Your task to perform on an android device: Open the Play Movies app and select the watchlist tab. Image 0: 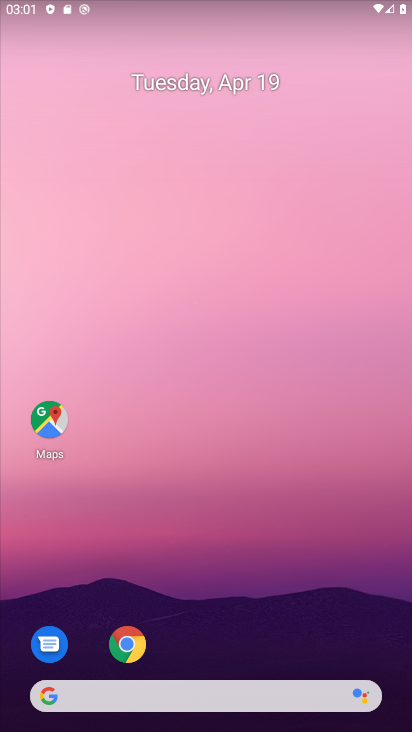
Step 0: drag from (258, 638) to (198, 84)
Your task to perform on an android device: Open the Play Movies app and select the watchlist tab. Image 1: 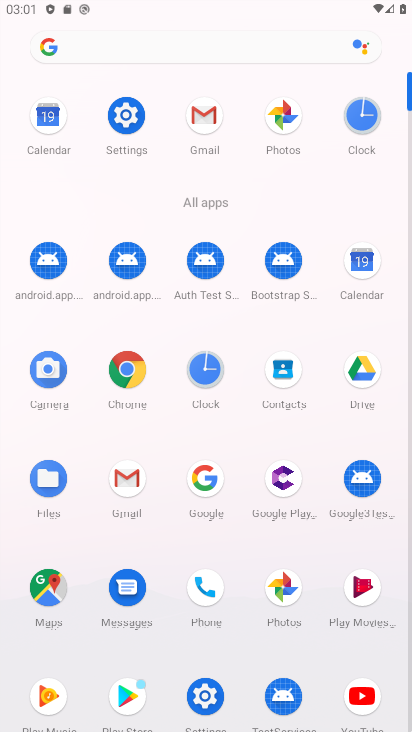
Step 1: click (361, 585)
Your task to perform on an android device: Open the Play Movies app and select the watchlist tab. Image 2: 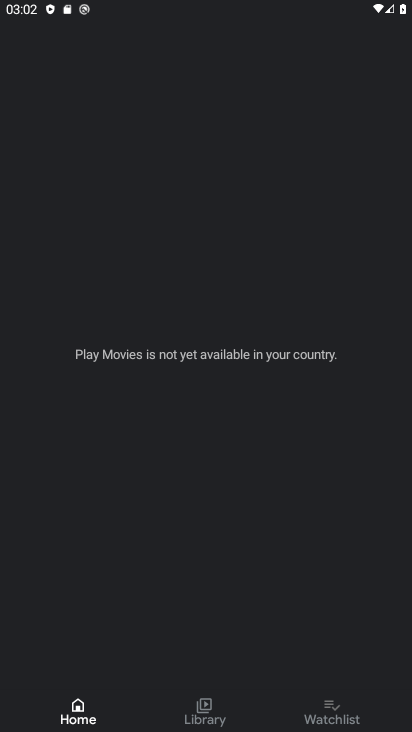
Step 2: click (328, 698)
Your task to perform on an android device: Open the Play Movies app and select the watchlist tab. Image 3: 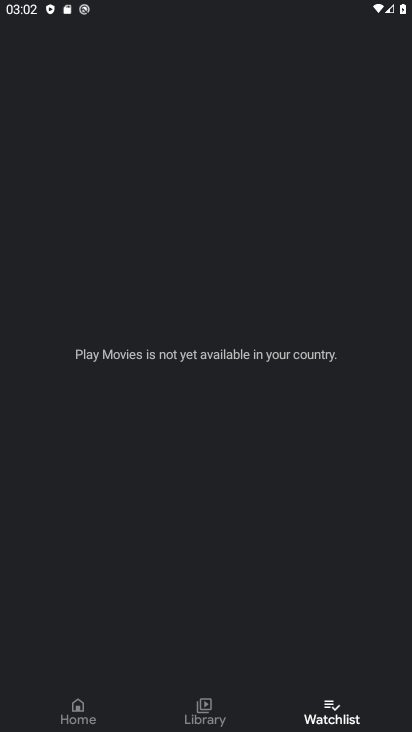
Step 3: task complete